Your task to perform on an android device: Search for Italian restaurants on Maps Image 0: 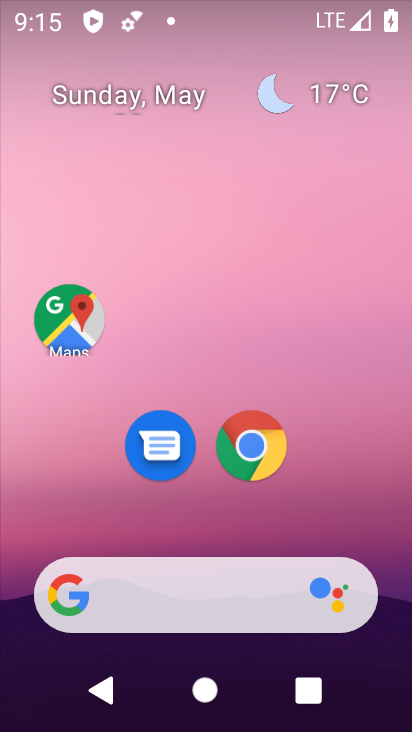
Step 0: drag from (228, 424) to (262, 58)
Your task to perform on an android device: Search for Italian restaurants on Maps Image 1: 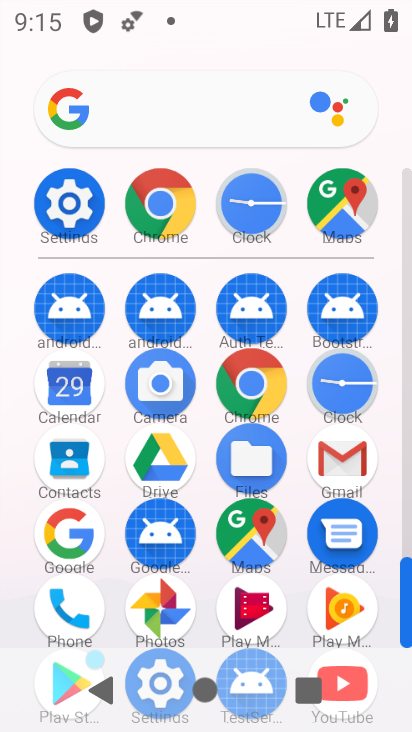
Step 1: click (246, 528)
Your task to perform on an android device: Search for Italian restaurants on Maps Image 2: 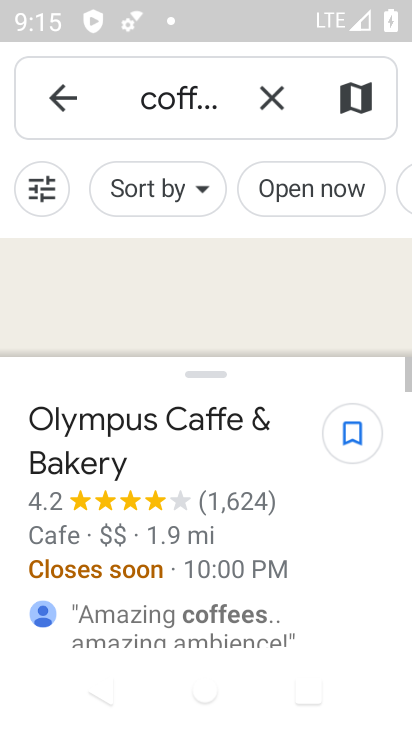
Step 2: click (267, 99)
Your task to perform on an android device: Search for Italian restaurants on Maps Image 3: 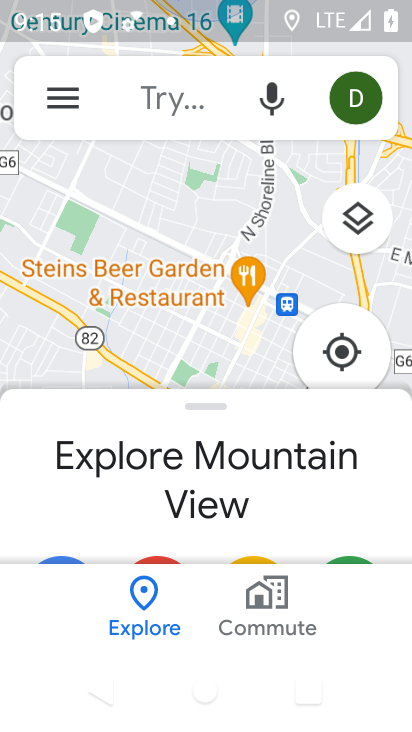
Step 3: click (173, 90)
Your task to perform on an android device: Search for Italian restaurants on Maps Image 4: 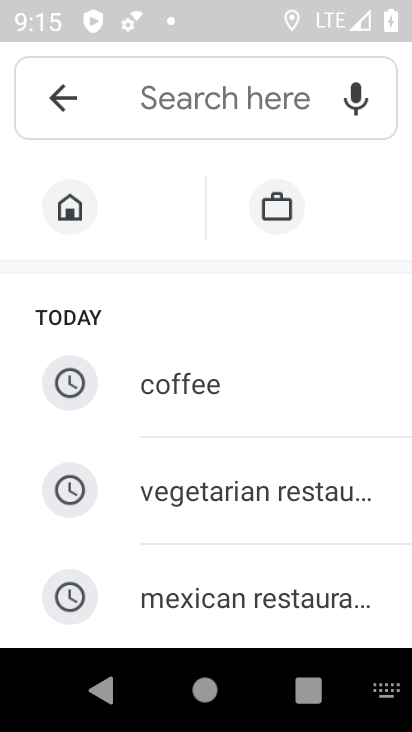
Step 4: drag from (323, 513) to (373, 92)
Your task to perform on an android device: Search for Italian restaurants on Maps Image 5: 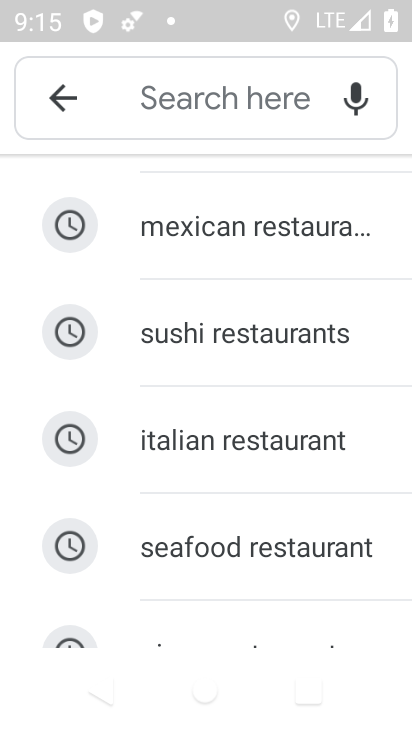
Step 5: click (227, 434)
Your task to perform on an android device: Search for Italian restaurants on Maps Image 6: 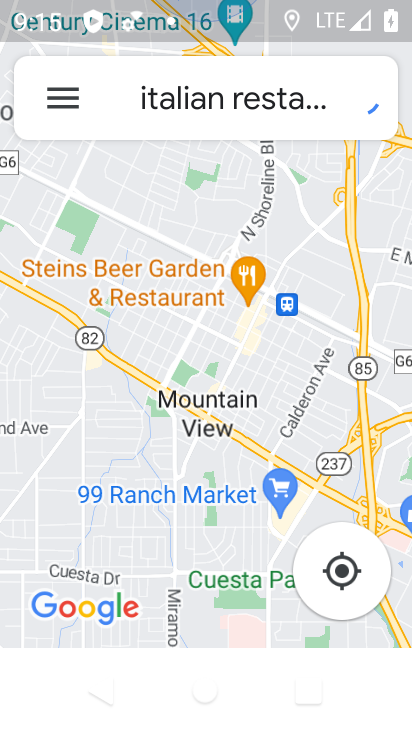
Step 6: task complete